Your task to perform on an android device: Open settings Image 0: 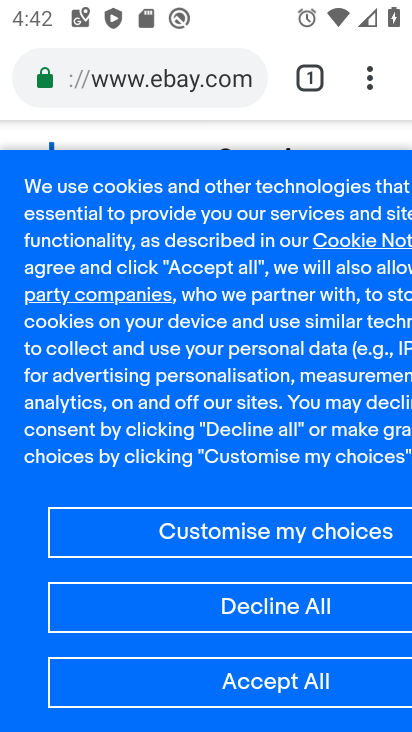
Step 0: press home button
Your task to perform on an android device: Open settings Image 1: 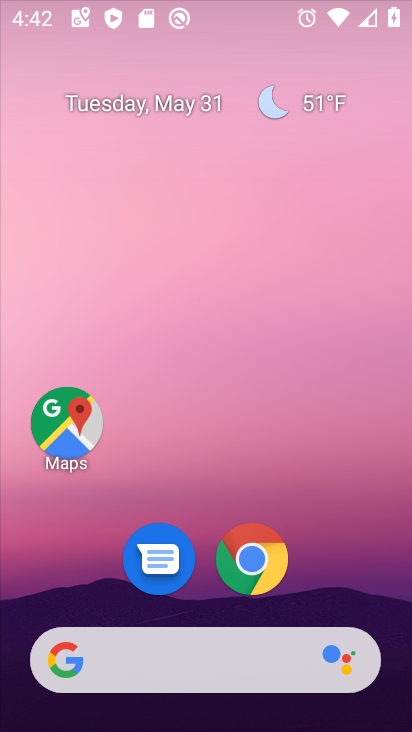
Step 1: drag from (337, 571) to (387, 36)
Your task to perform on an android device: Open settings Image 2: 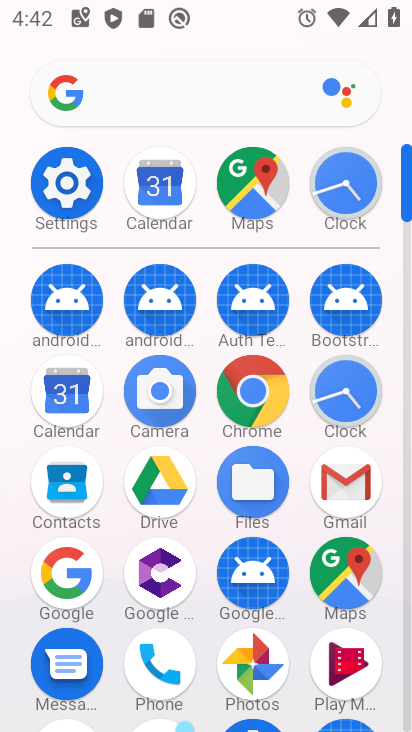
Step 2: click (63, 185)
Your task to perform on an android device: Open settings Image 3: 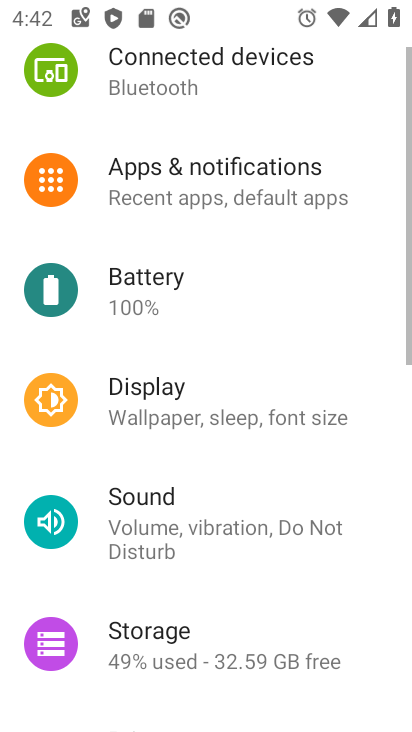
Step 3: task complete